Your task to perform on an android device: turn on priority inbox in the gmail app Image 0: 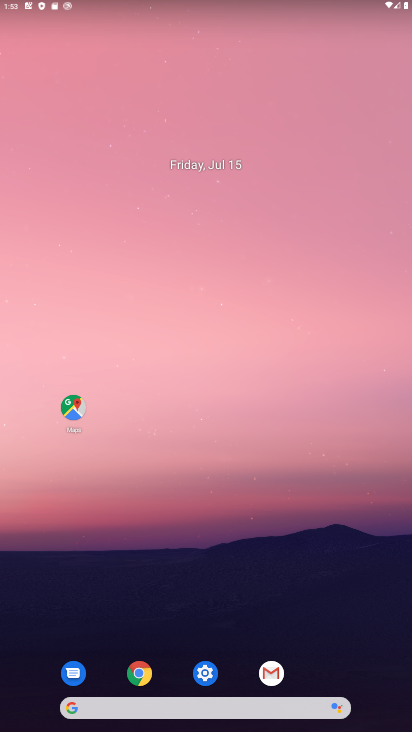
Step 0: press home button
Your task to perform on an android device: turn on priority inbox in the gmail app Image 1: 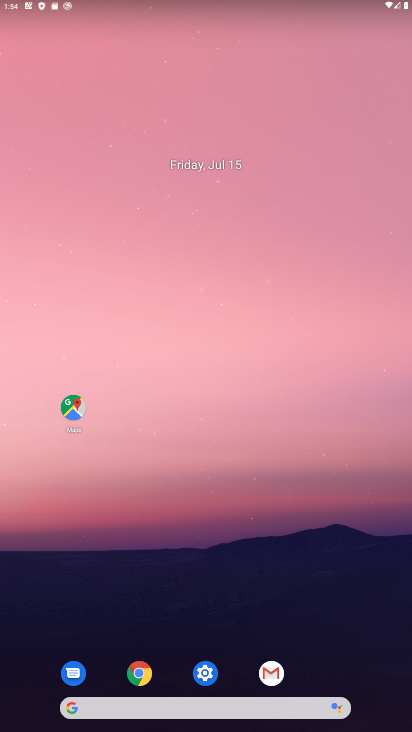
Step 1: click (270, 672)
Your task to perform on an android device: turn on priority inbox in the gmail app Image 2: 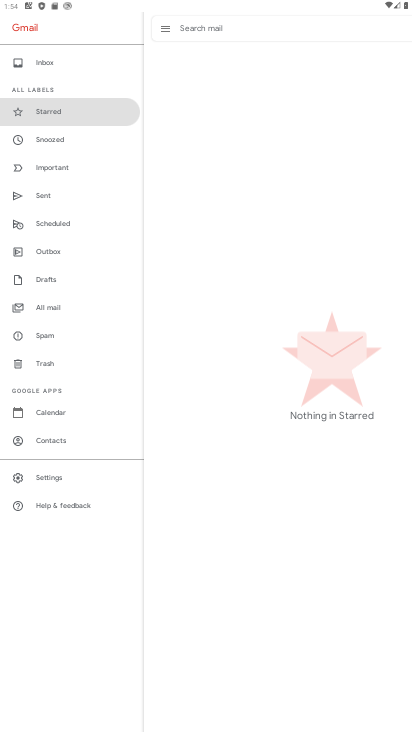
Step 2: task complete